Your task to perform on an android device: Go to Reddit.com Image 0: 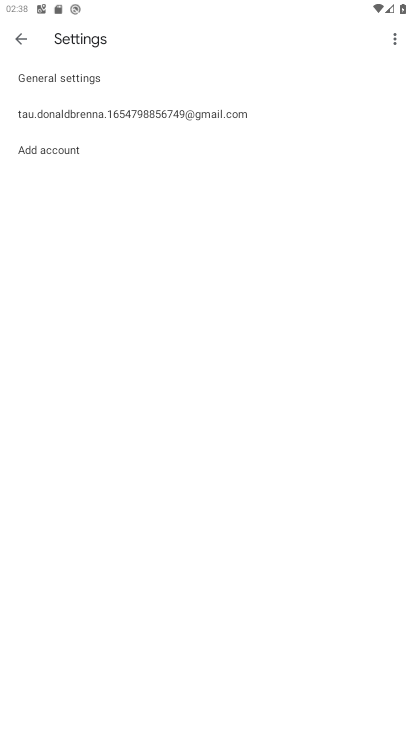
Step 0: press home button
Your task to perform on an android device: Go to Reddit.com Image 1: 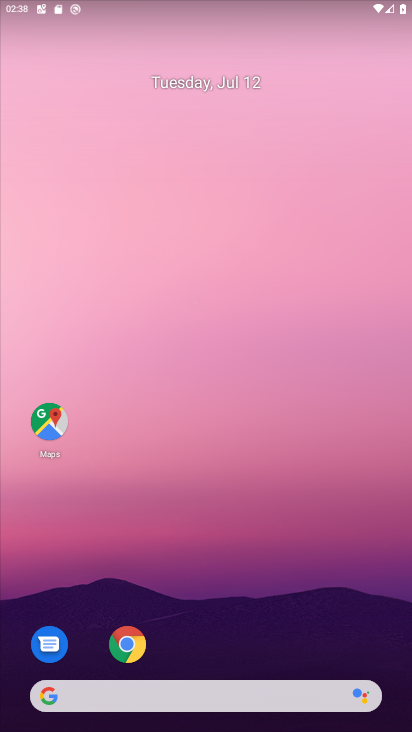
Step 1: click (116, 638)
Your task to perform on an android device: Go to Reddit.com Image 2: 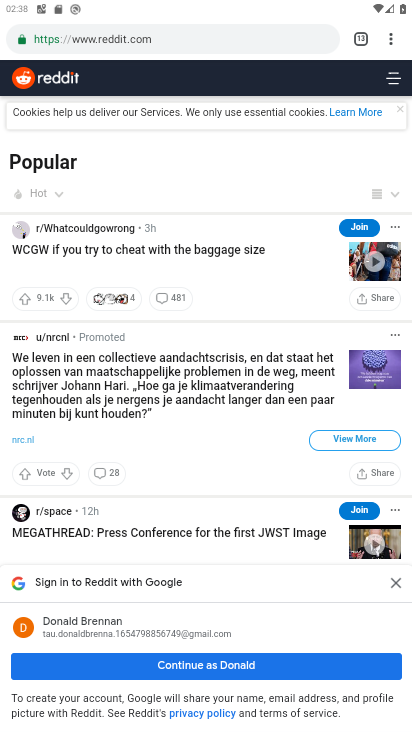
Step 2: task complete